Your task to perform on an android device: Add energizer triple a to the cart on ebay.com, then select checkout. Image 0: 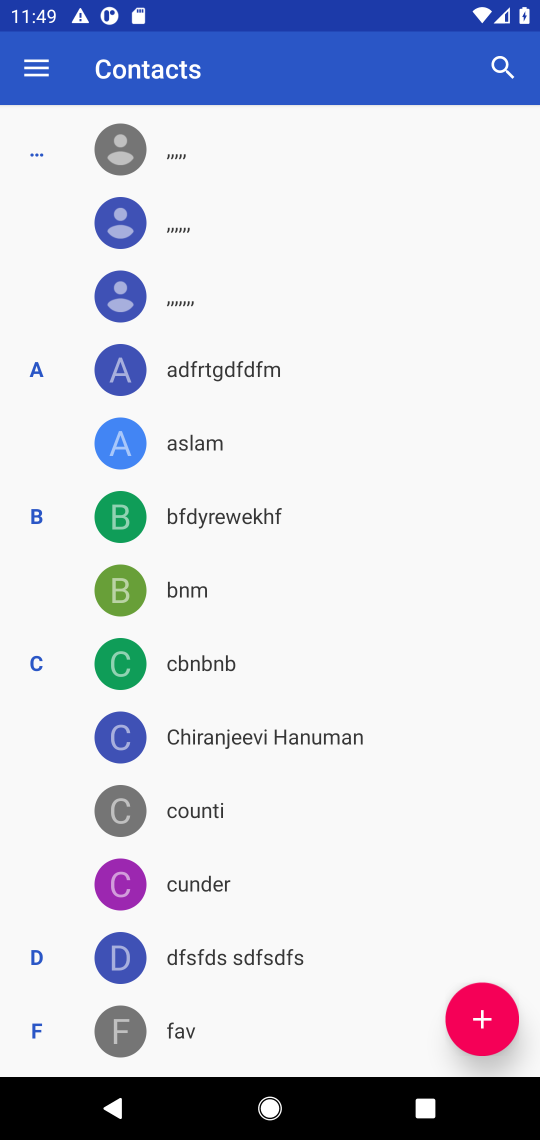
Step 0: press home button
Your task to perform on an android device: Add energizer triple a to the cart on ebay.com, then select checkout. Image 1: 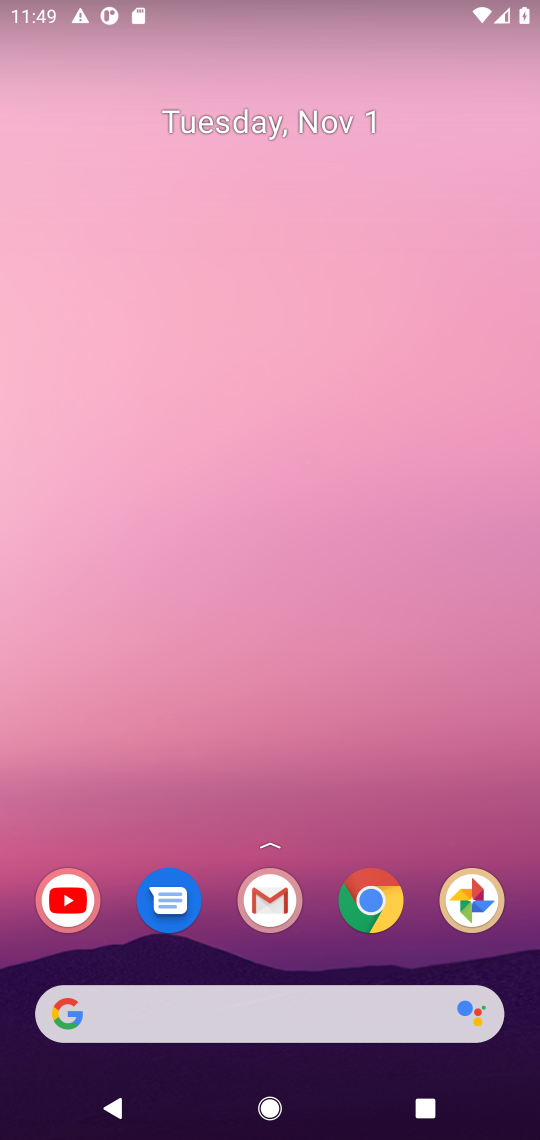
Step 1: click (374, 929)
Your task to perform on an android device: Add energizer triple a to the cart on ebay.com, then select checkout. Image 2: 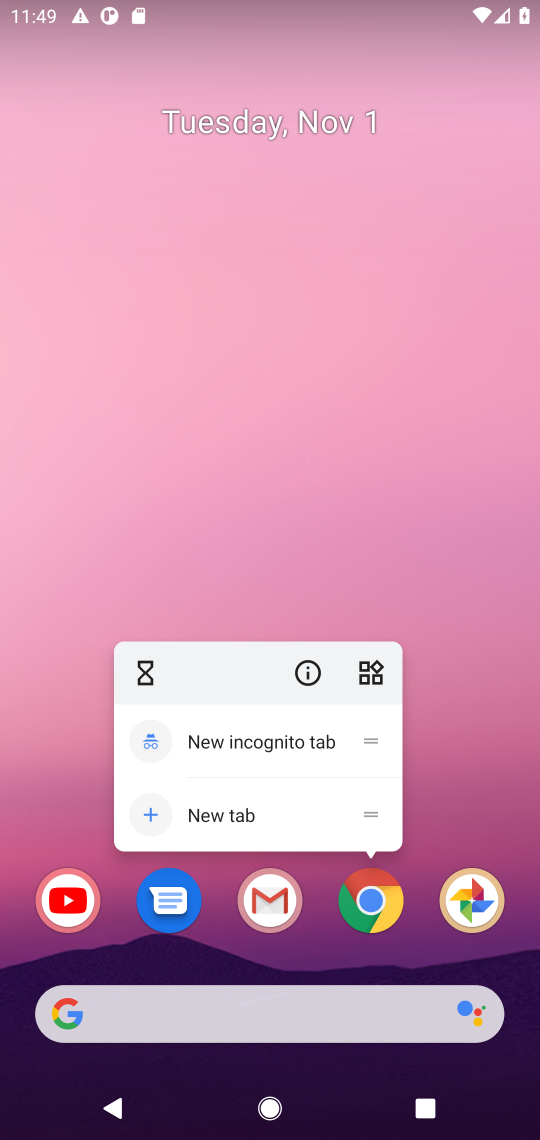
Step 2: click (372, 908)
Your task to perform on an android device: Add energizer triple a to the cart on ebay.com, then select checkout. Image 3: 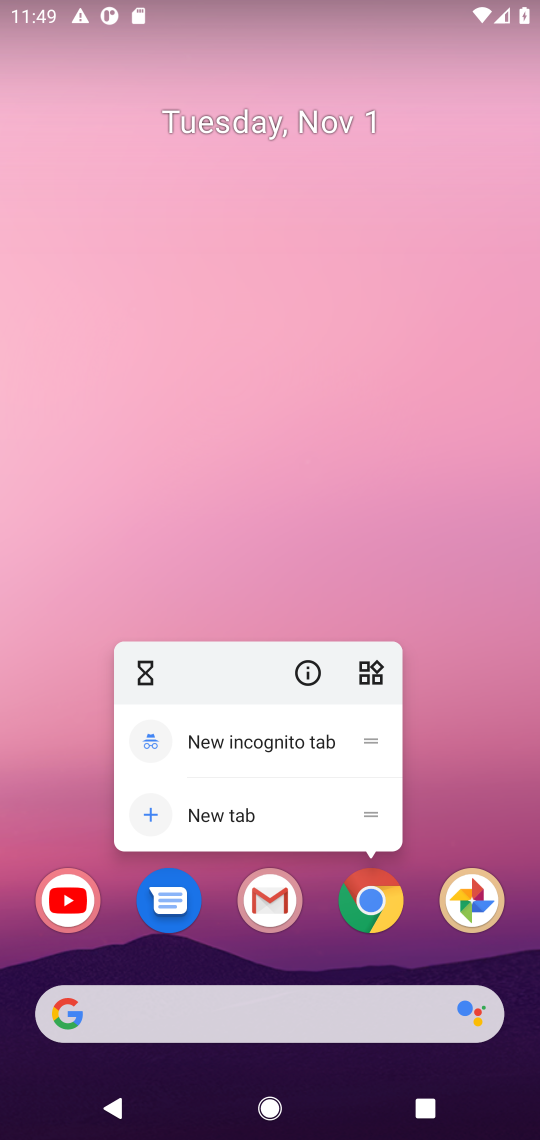
Step 3: click (372, 908)
Your task to perform on an android device: Add energizer triple a to the cart on ebay.com, then select checkout. Image 4: 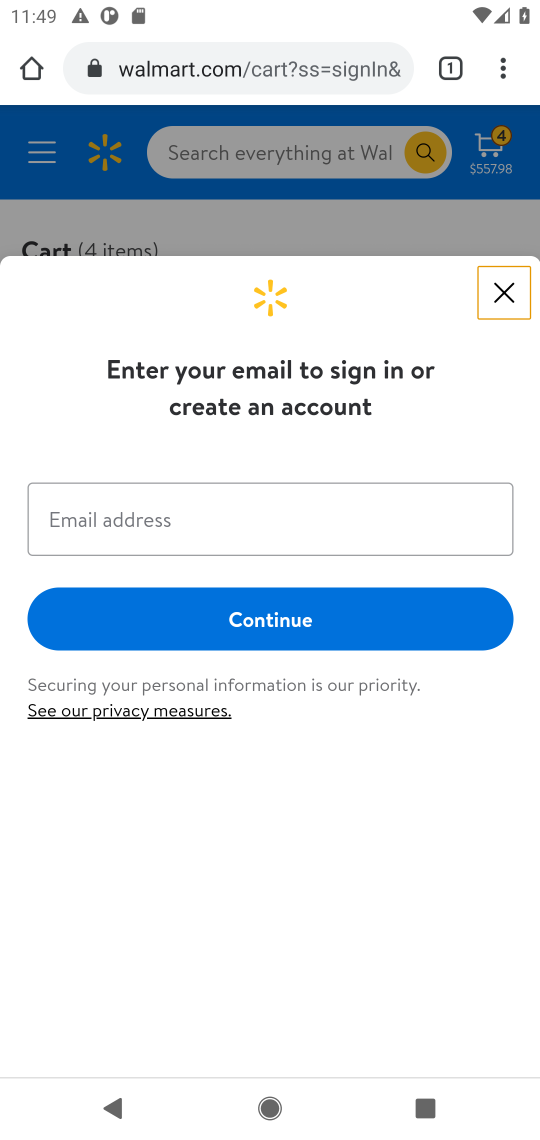
Step 4: click (228, 70)
Your task to perform on an android device: Add energizer triple a to the cart on ebay.com, then select checkout. Image 5: 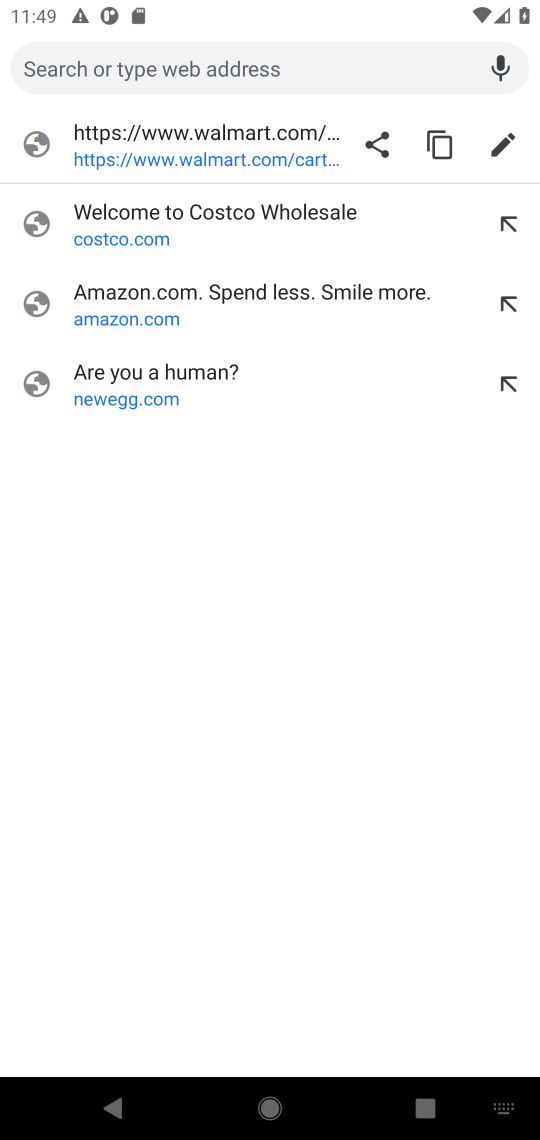
Step 5: type "ebay"
Your task to perform on an android device: Add energizer triple a to the cart on ebay.com, then select checkout. Image 6: 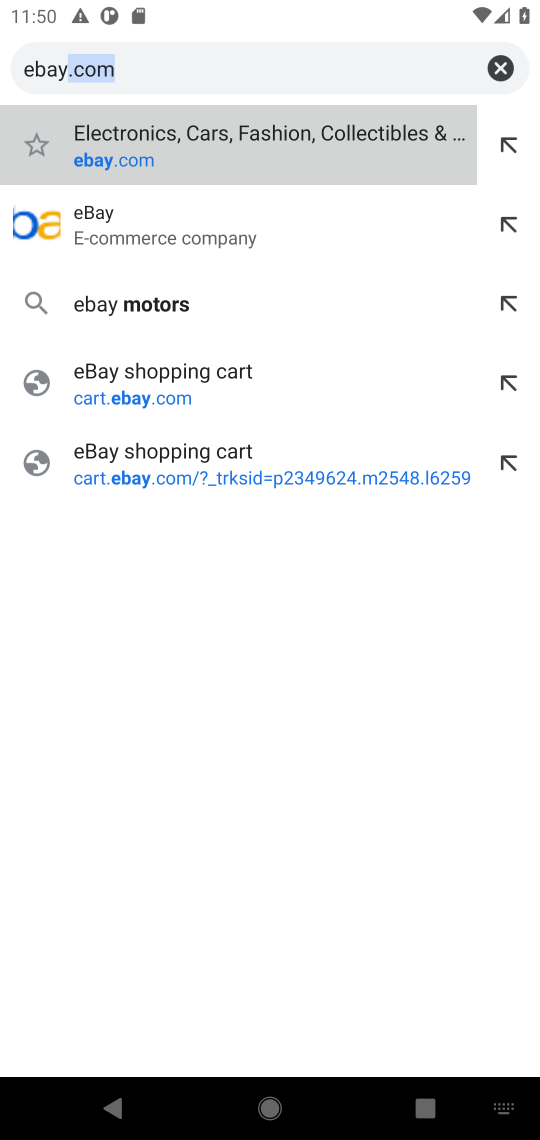
Step 6: type ""
Your task to perform on an android device: Add energizer triple a to the cart on ebay.com, then select checkout. Image 7: 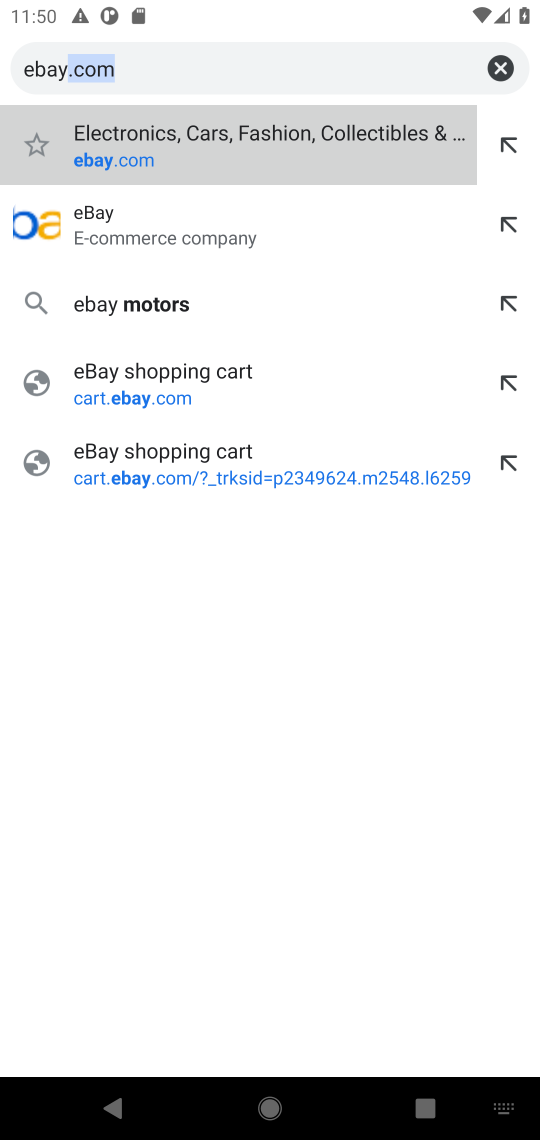
Step 7: click (131, 218)
Your task to perform on an android device: Add energizer triple a to the cart on ebay.com, then select checkout. Image 8: 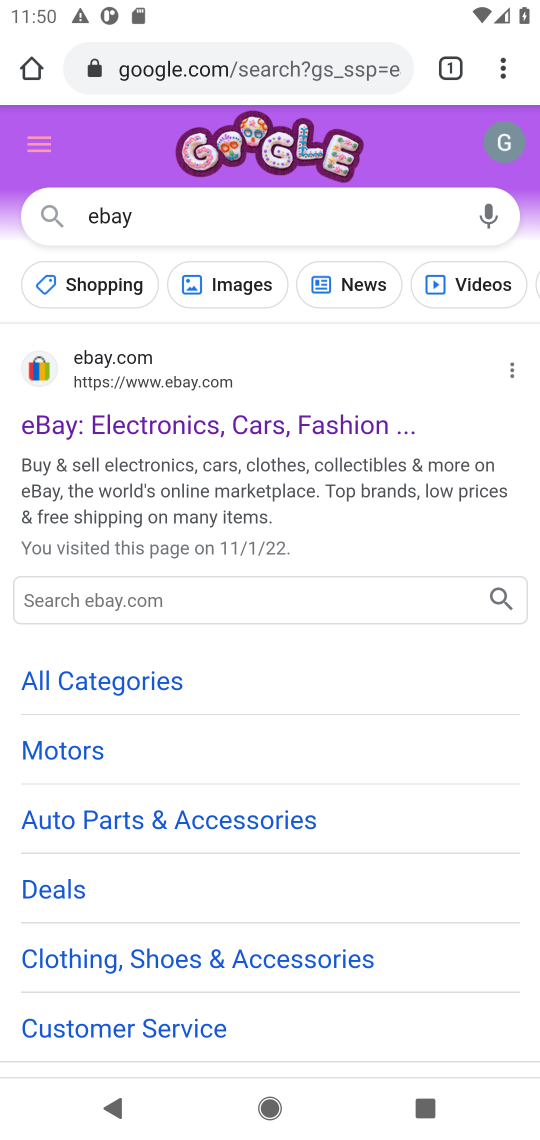
Step 8: click (65, 438)
Your task to perform on an android device: Add energizer triple a to the cart on ebay.com, then select checkout. Image 9: 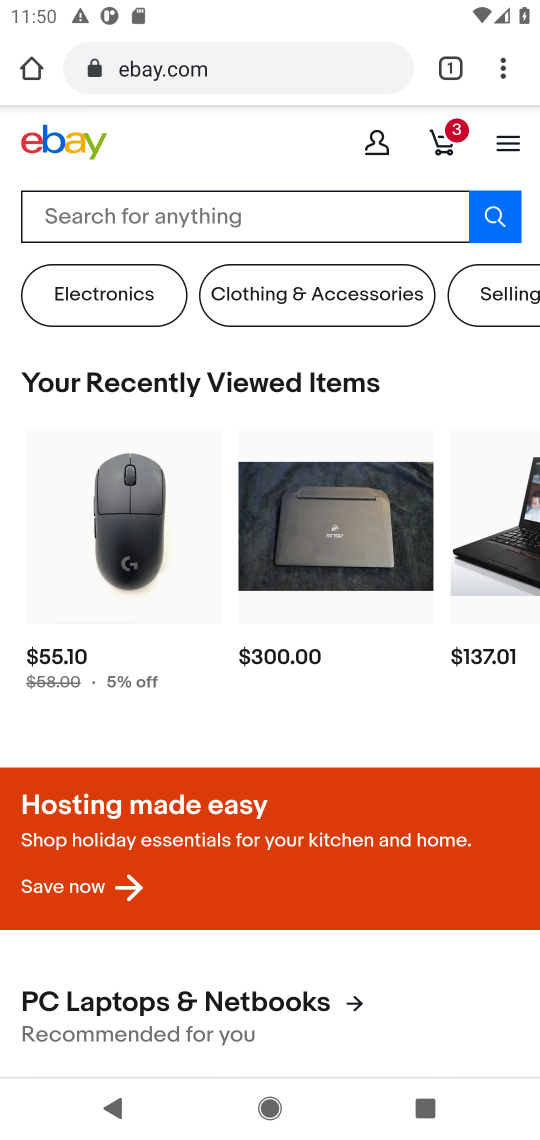
Step 9: click (338, 221)
Your task to perform on an android device: Add energizer triple a to the cart on ebay.com, then select checkout. Image 10: 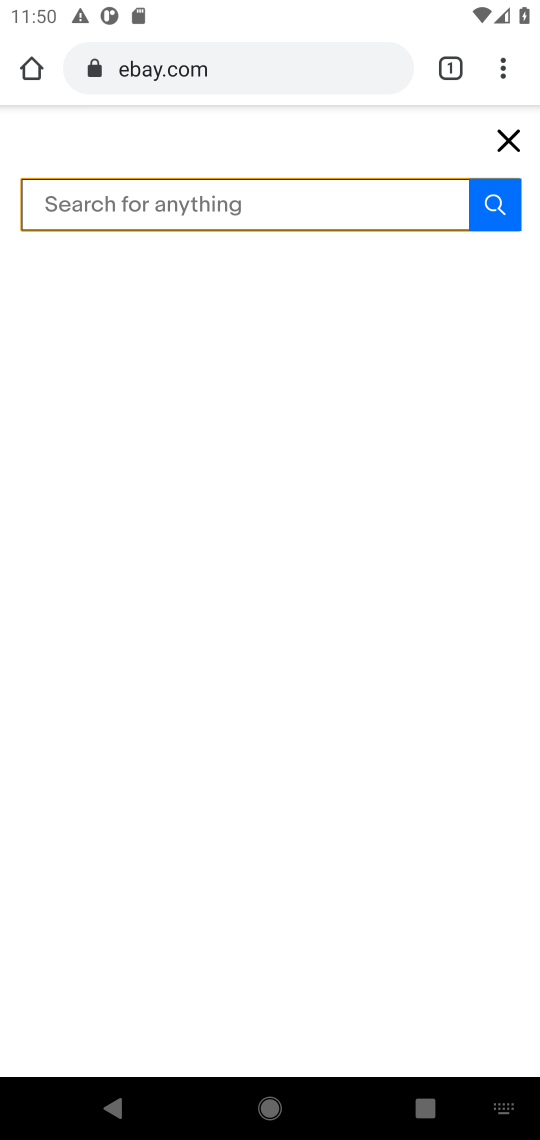
Step 10: type "energizer triple a "
Your task to perform on an android device: Add energizer triple a to the cart on ebay.com, then select checkout. Image 11: 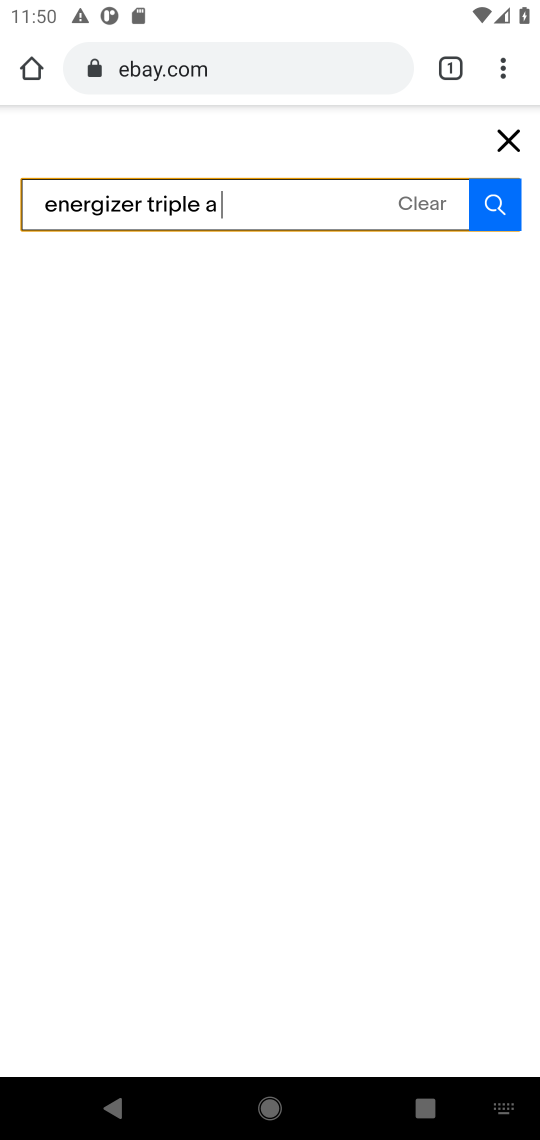
Step 11: type ""
Your task to perform on an android device: Add energizer triple a to the cart on ebay.com, then select checkout. Image 12: 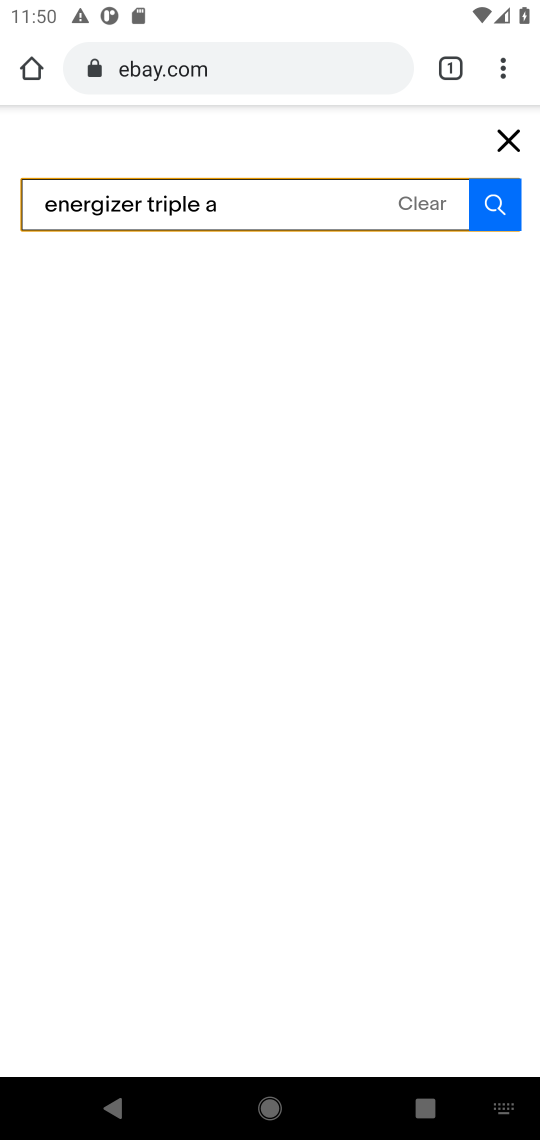
Step 12: click (505, 197)
Your task to perform on an android device: Add energizer triple a to the cart on ebay.com, then select checkout. Image 13: 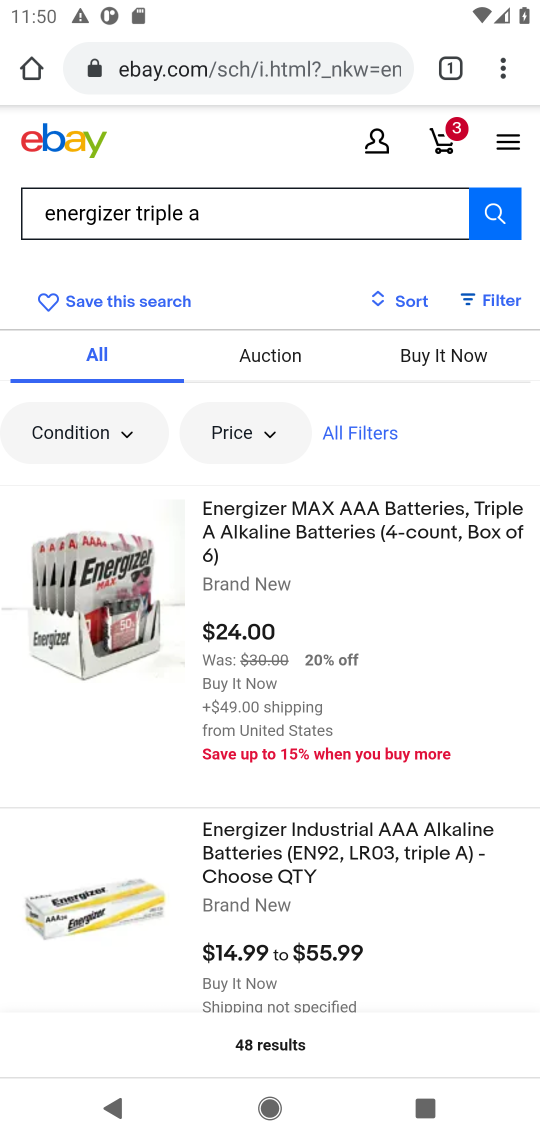
Step 13: click (250, 539)
Your task to perform on an android device: Add energizer triple a to the cart on ebay.com, then select checkout. Image 14: 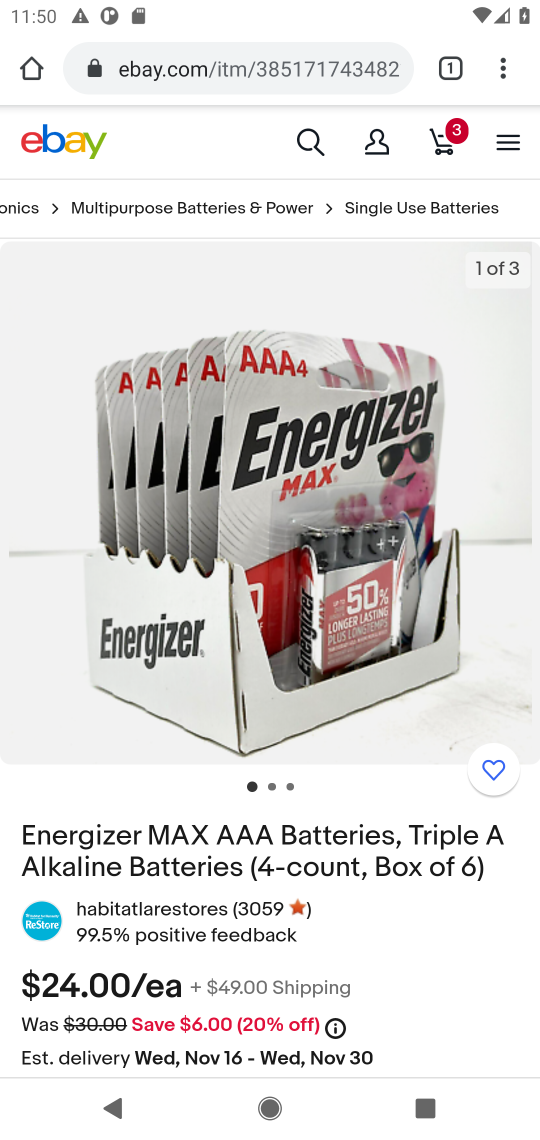
Step 14: drag from (219, 971) to (313, 446)
Your task to perform on an android device: Add energizer triple a to the cart on ebay.com, then select checkout. Image 15: 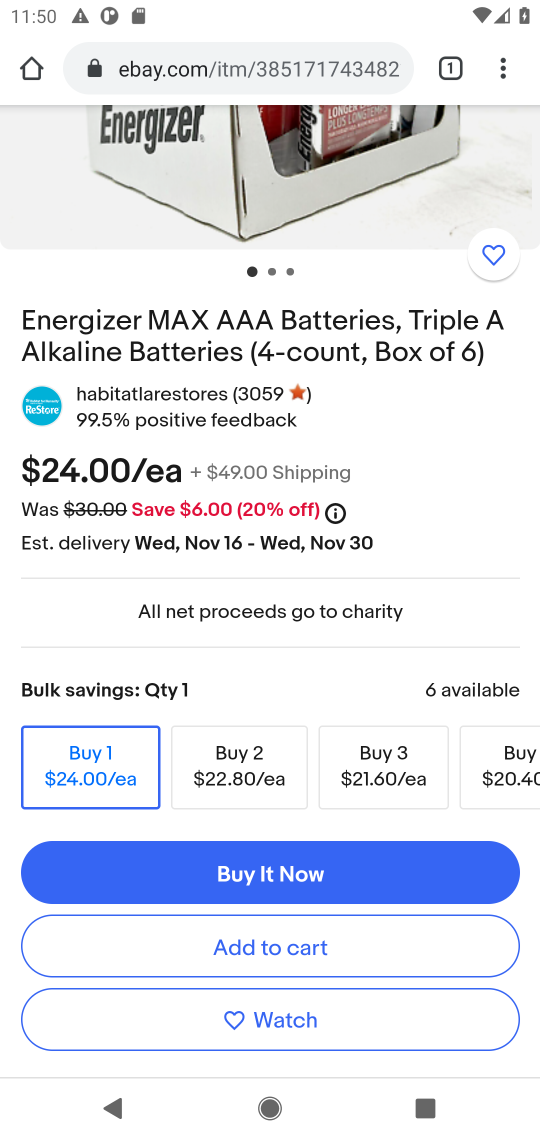
Step 15: click (252, 927)
Your task to perform on an android device: Add energizer triple a to the cart on ebay.com, then select checkout. Image 16: 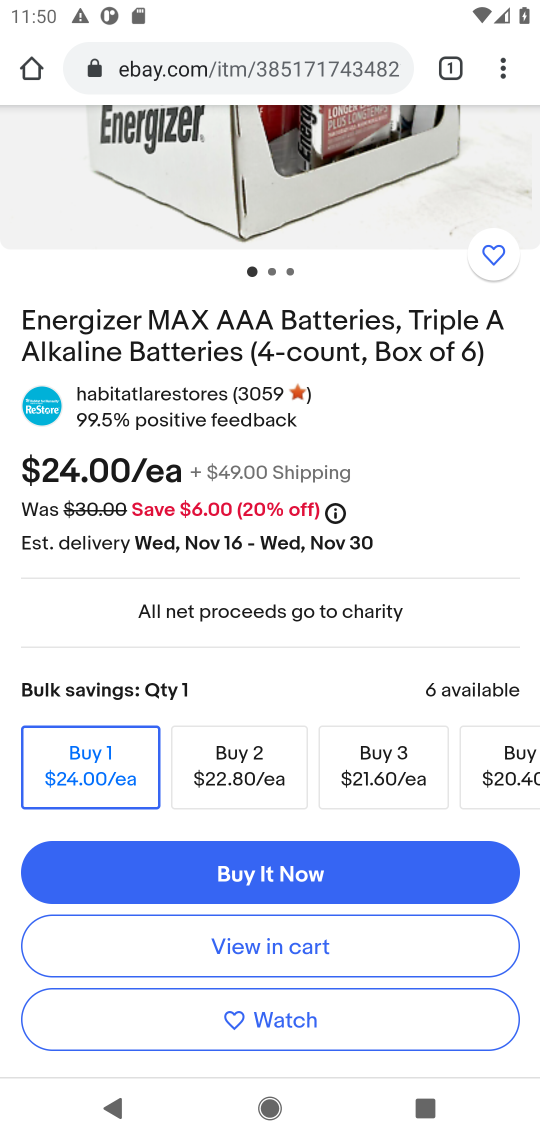
Step 16: click (252, 927)
Your task to perform on an android device: Add energizer triple a to the cart on ebay.com, then select checkout. Image 17: 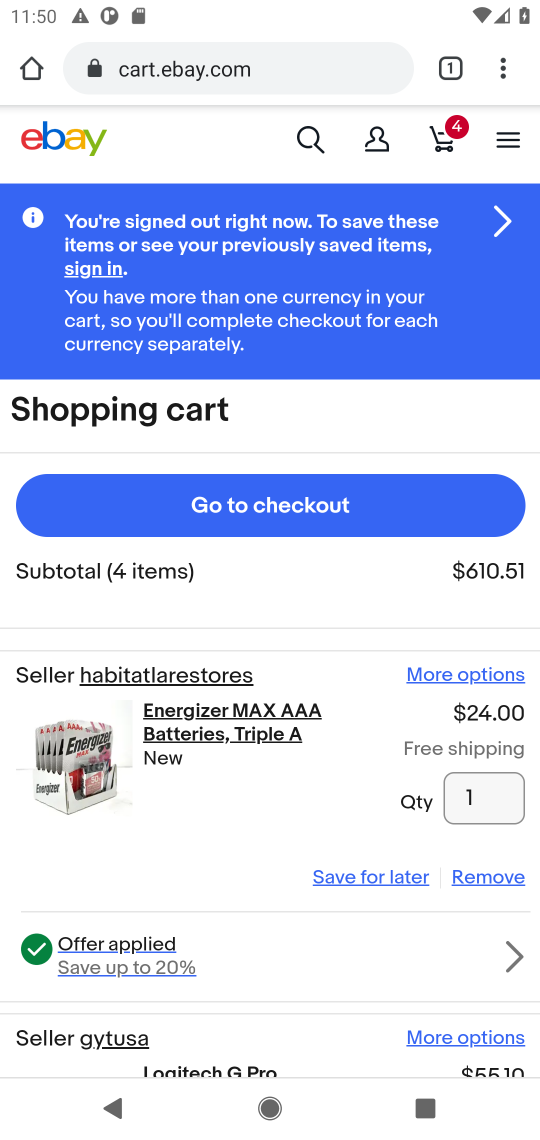
Step 17: click (155, 496)
Your task to perform on an android device: Add energizer triple a to the cart on ebay.com, then select checkout. Image 18: 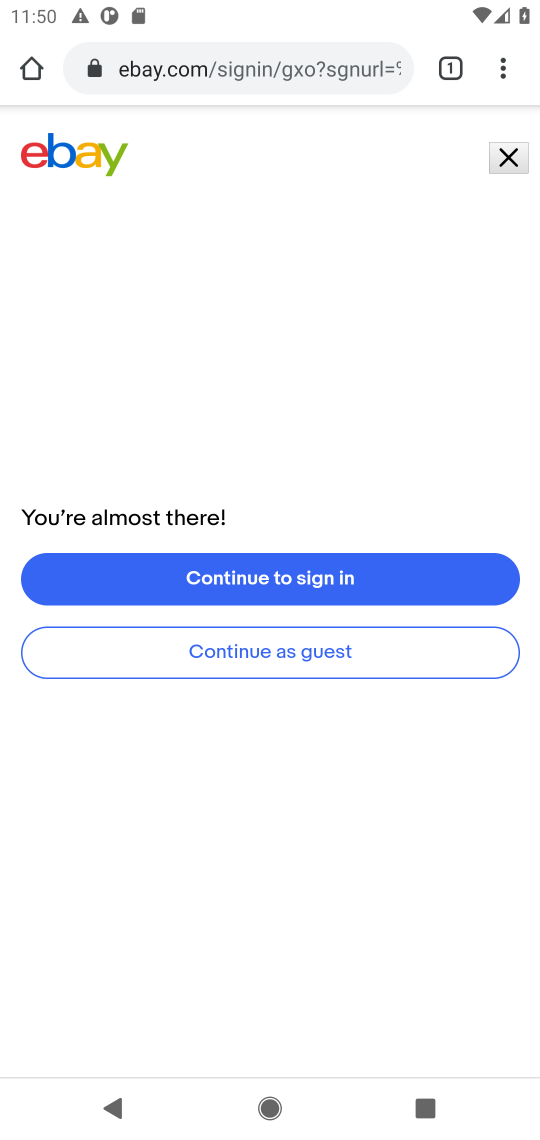
Step 18: task complete